Your task to perform on an android device: Open Youtube and go to "Your channel" Image 0: 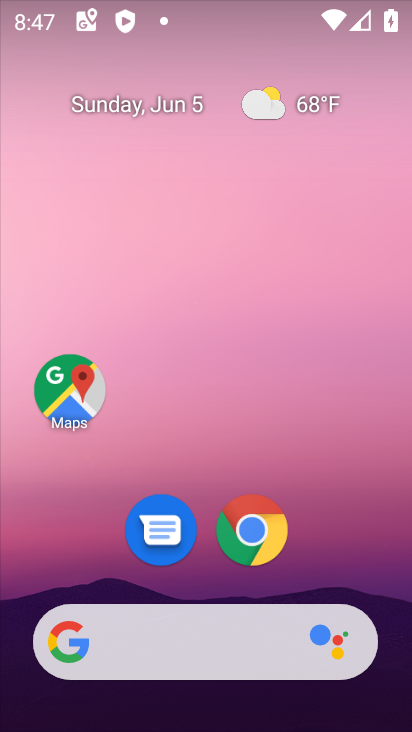
Step 0: drag from (389, 593) to (334, 69)
Your task to perform on an android device: Open Youtube and go to "Your channel" Image 1: 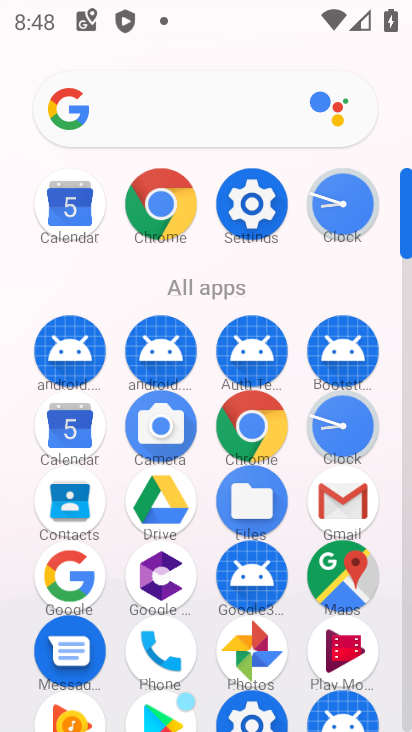
Step 1: click (403, 684)
Your task to perform on an android device: Open Youtube and go to "Your channel" Image 2: 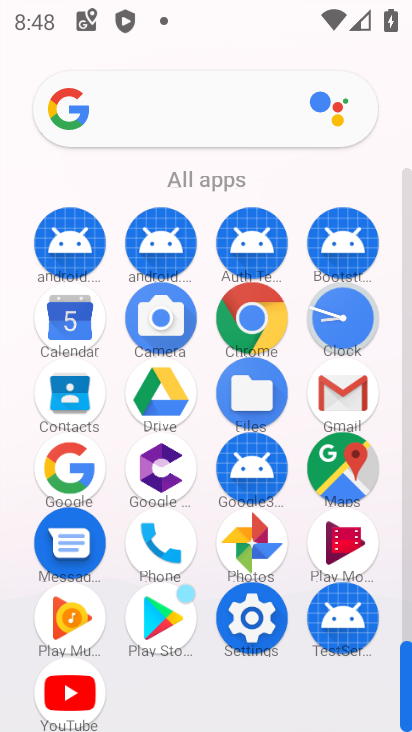
Step 2: click (71, 688)
Your task to perform on an android device: Open Youtube and go to "Your channel" Image 3: 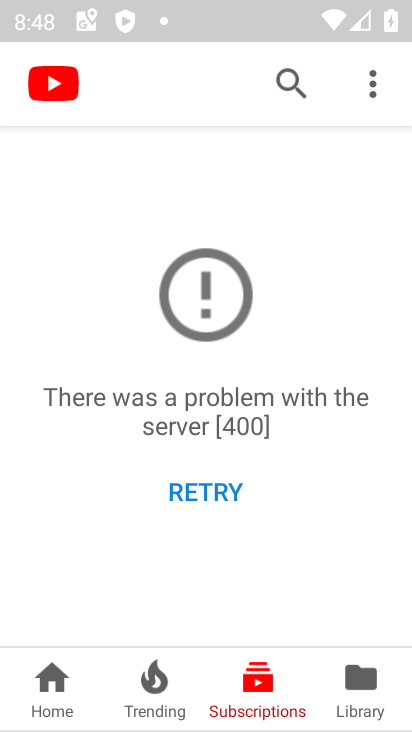
Step 3: click (369, 90)
Your task to perform on an android device: Open Youtube and go to "Your channel" Image 4: 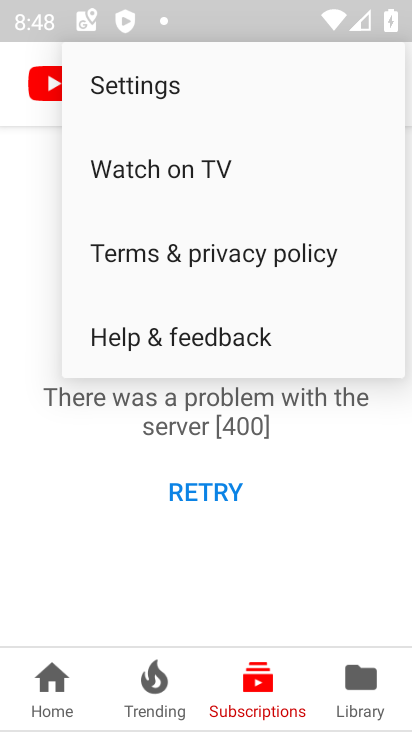
Step 4: click (111, 84)
Your task to perform on an android device: Open Youtube and go to "Your channel" Image 5: 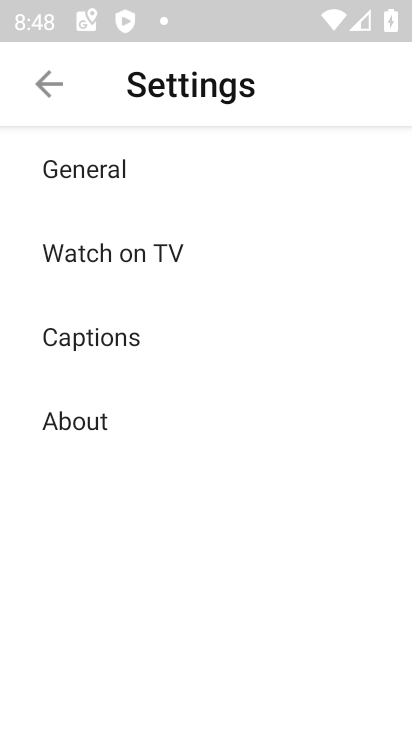
Step 5: click (93, 150)
Your task to perform on an android device: Open Youtube and go to "Your channel" Image 6: 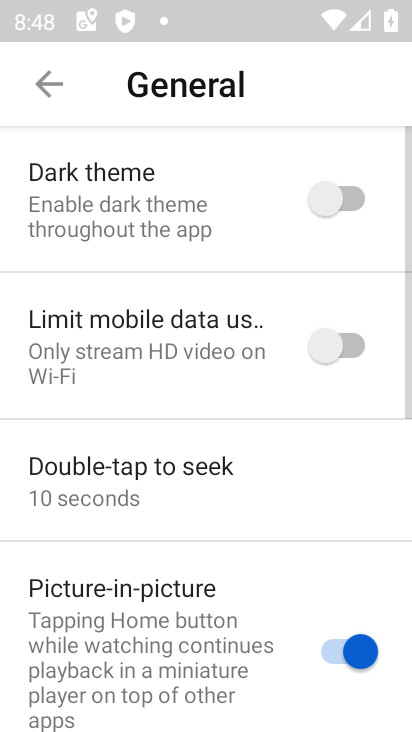
Step 6: task complete